Your task to perform on an android device: turn off javascript in the chrome app Image 0: 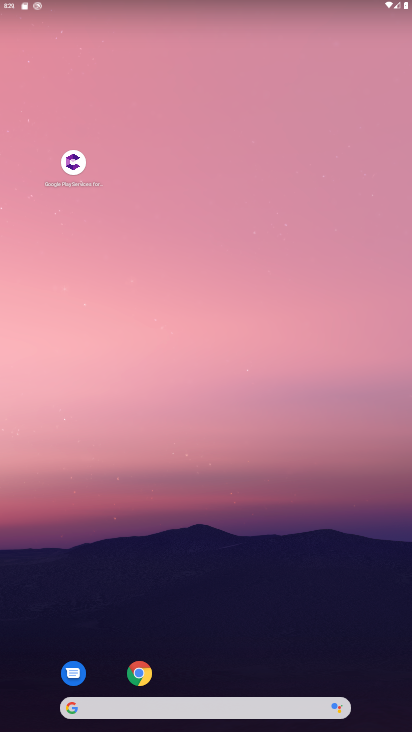
Step 0: click (139, 673)
Your task to perform on an android device: turn off javascript in the chrome app Image 1: 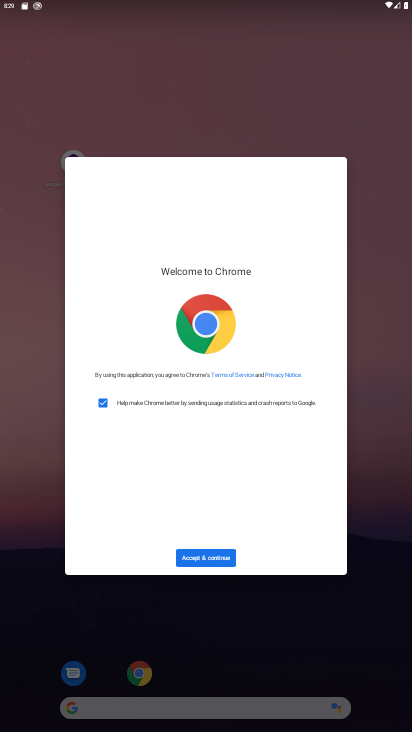
Step 1: click (208, 549)
Your task to perform on an android device: turn off javascript in the chrome app Image 2: 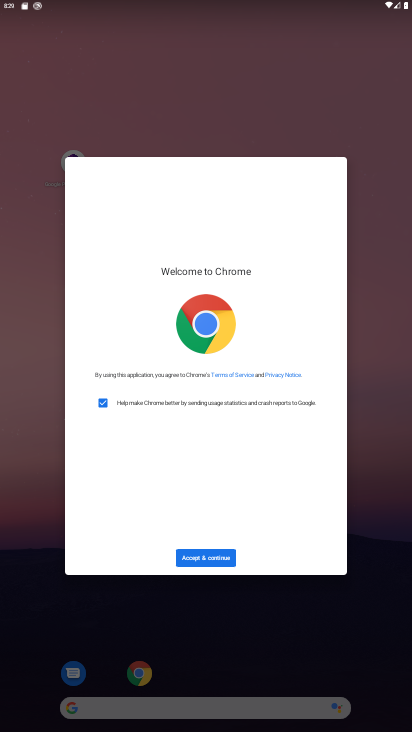
Step 2: click (195, 550)
Your task to perform on an android device: turn off javascript in the chrome app Image 3: 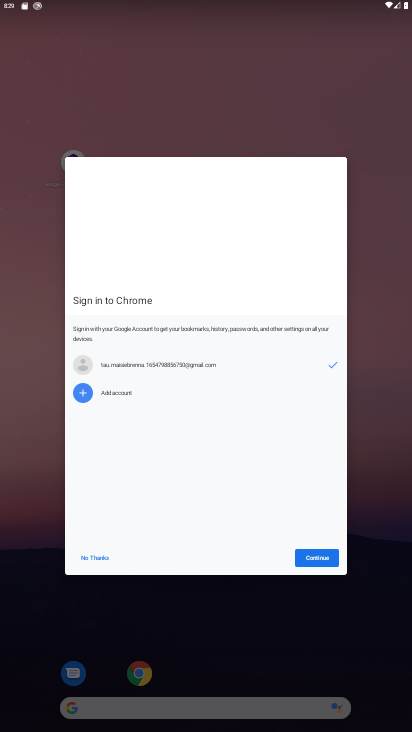
Step 3: click (305, 550)
Your task to perform on an android device: turn off javascript in the chrome app Image 4: 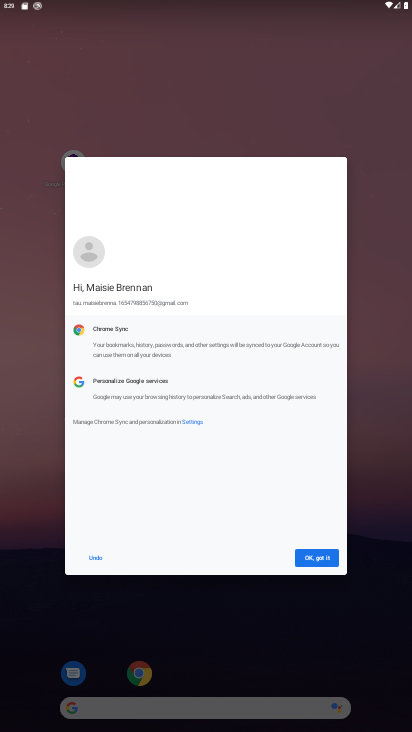
Step 4: click (319, 561)
Your task to perform on an android device: turn off javascript in the chrome app Image 5: 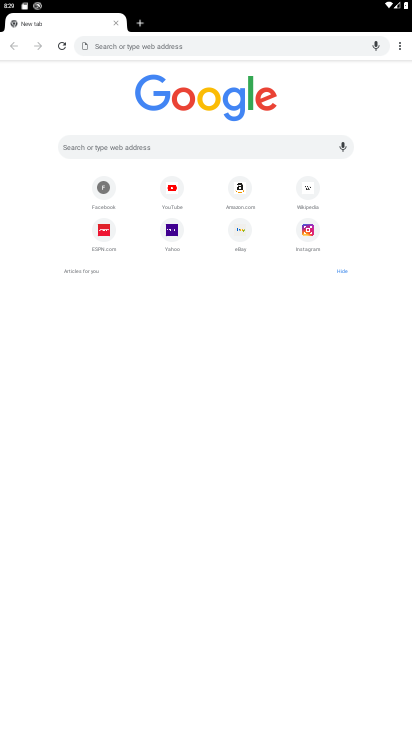
Step 5: click (404, 49)
Your task to perform on an android device: turn off javascript in the chrome app Image 6: 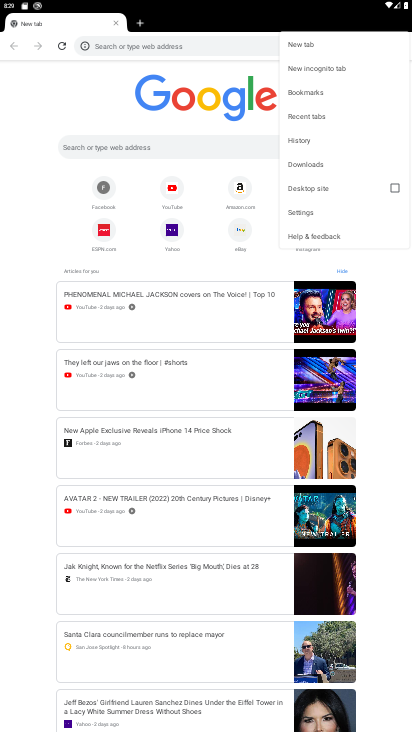
Step 6: click (319, 208)
Your task to perform on an android device: turn off javascript in the chrome app Image 7: 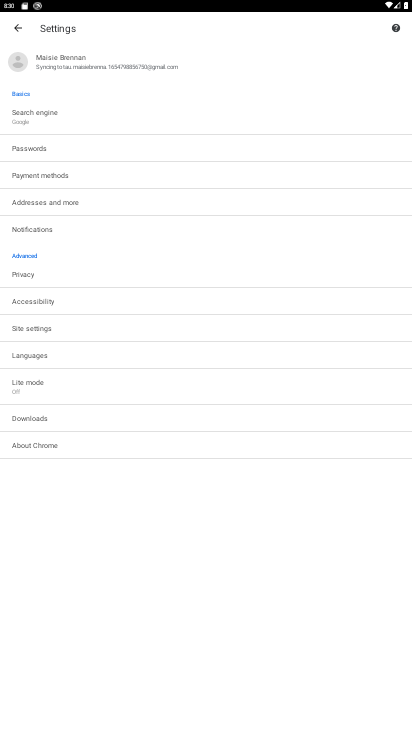
Step 7: click (30, 325)
Your task to perform on an android device: turn off javascript in the chrome app Image 8: 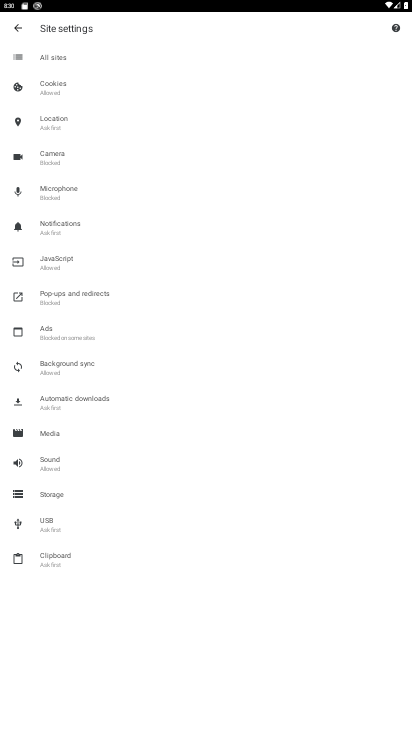
Step 8: click (60, 263)
Your task to perform on an android device: turn off javascript in the chrome app Image 9: 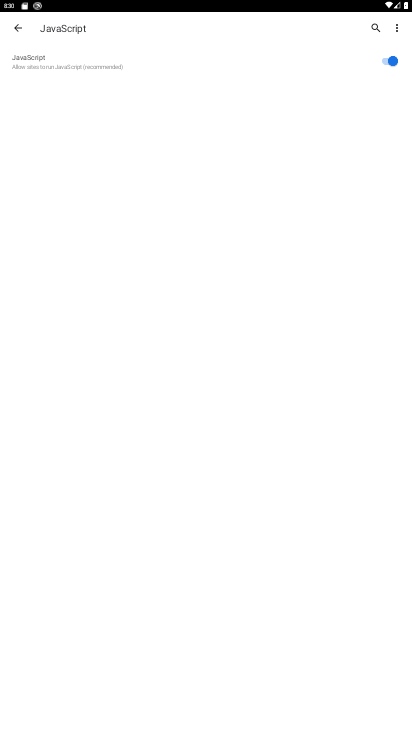
Step 9: click (387, 59)
Your task to perform on an android device: turn off javascript in the chrome app Image 10: 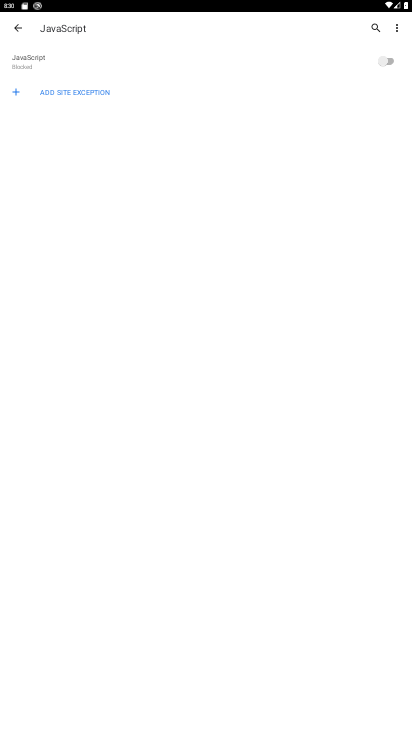
Step 10: task complete